Your task to perform on an android device: check google app version Image 0: 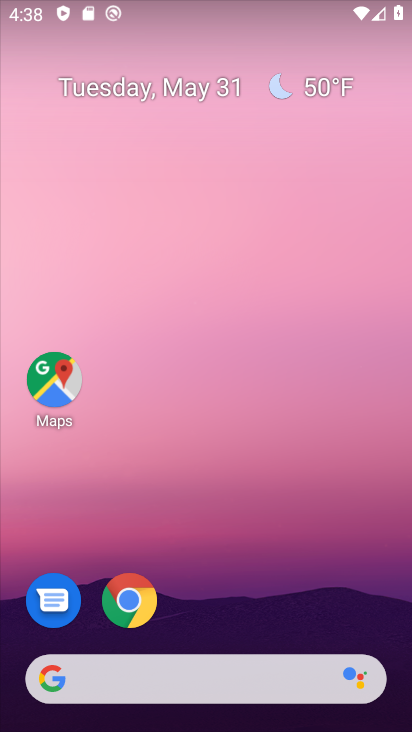
Step 0: drag from (250, 517) to (248, 177)
Your task to perform on an android device: check google app version Image 1: 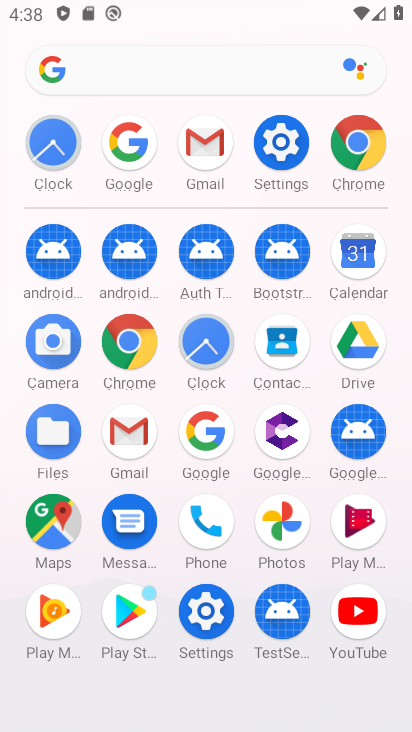
Step 1: click (129, 137)
Your task to perform on an android device: check google app version Image 2: 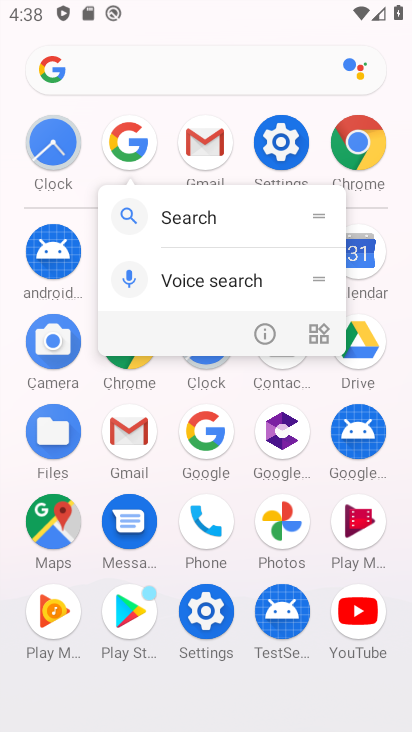
Step 2: click (268, 333)
Your task to perform on an android device: check google app version Image 3: 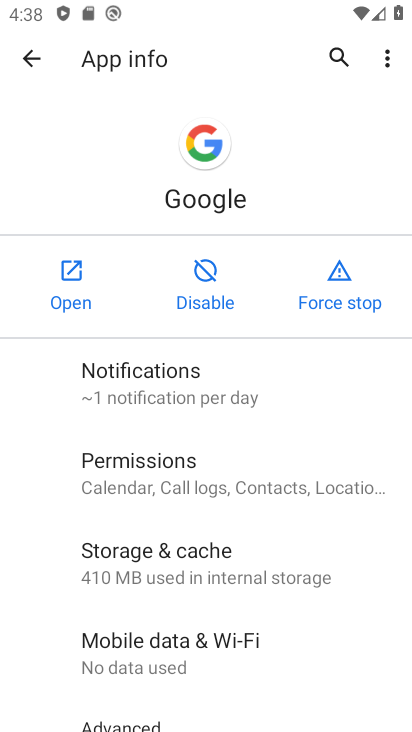
Step 3: drag from (207, 519) to (259, 426)
Your task to perform on an android device: check google app version Image 4: 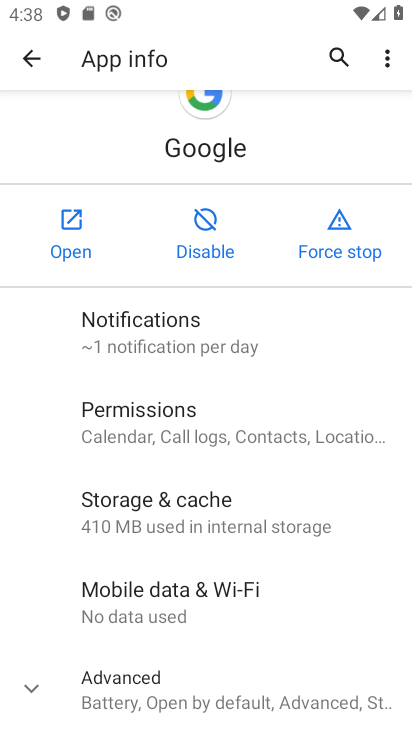
Step 4: drag from (203, 471) to (260, 348)
Your task to perform on an android device: check google app version Image 5: 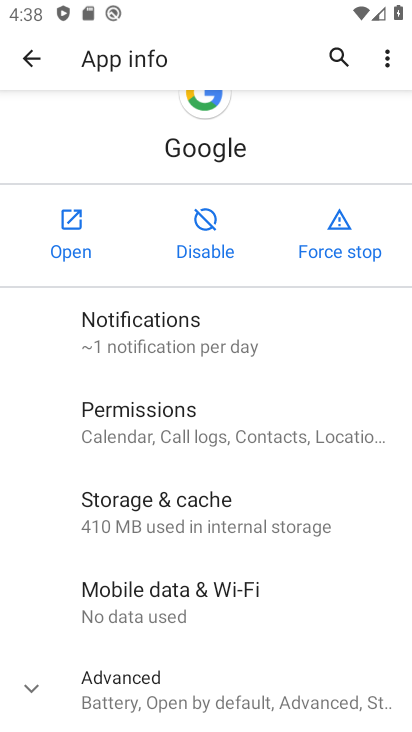
Step 5: click (186, 701)
Your task to perform on an android device: check google app version Image 6: 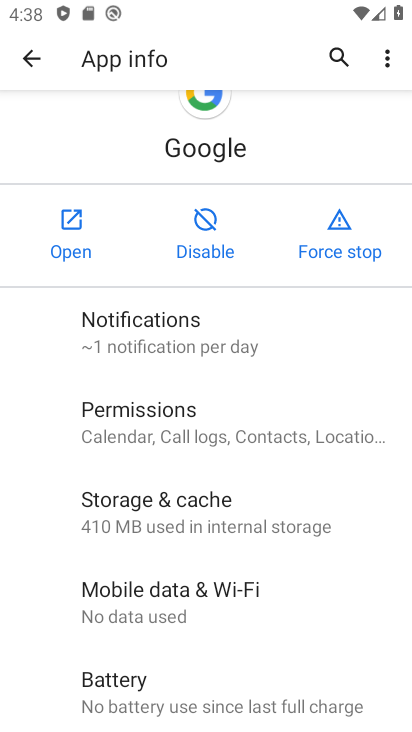
Step 6: task complete